Your task to perform on an android device: Search for pizza restaurants on Maps Image 0: 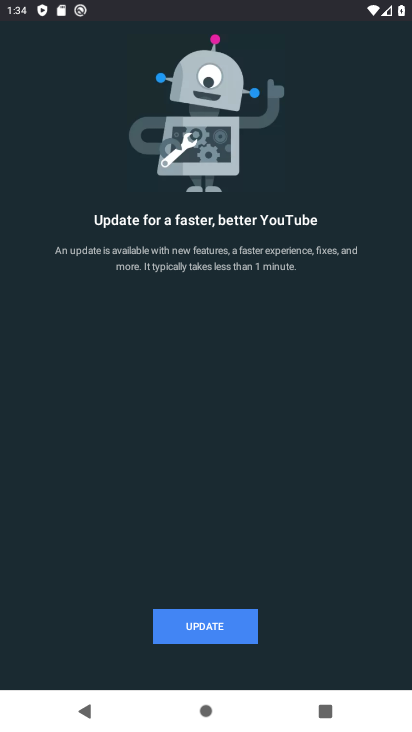
Step 0: press home button
Your task to perform on an android device: Search for pizza restaurants on Maps Image 1: 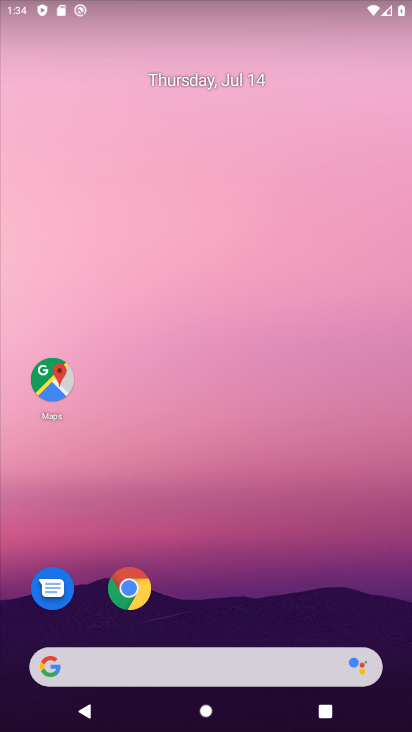
Step 1: drag from (170, 640) to (216, 205)
Your task to perform on an android device: Search for pizza restaurants on Maps Image 2: 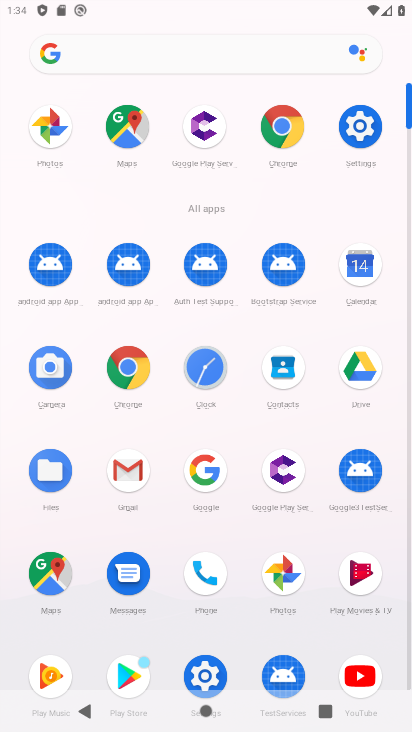
Step 2: click (40, 581)
Your task to perform on an android device: Search for pizza restaurants on Maps Image 3: 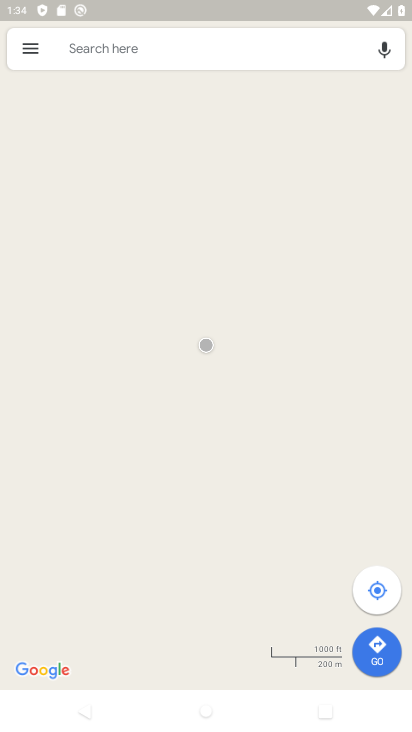
Step 3: click (179, 49)
Your task to perform on an android device: Search for pizza restaurants on Maps Image 4: 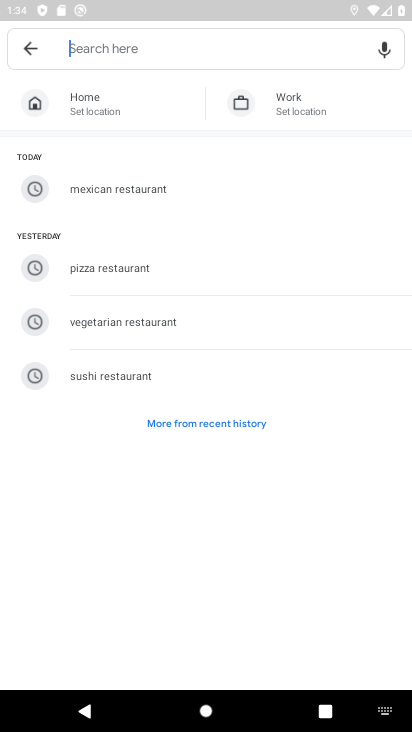
Step 4: type "Pizza restaurants"
Your task to perform on an android device: Search for pizza restaurants on Maps Image 5: 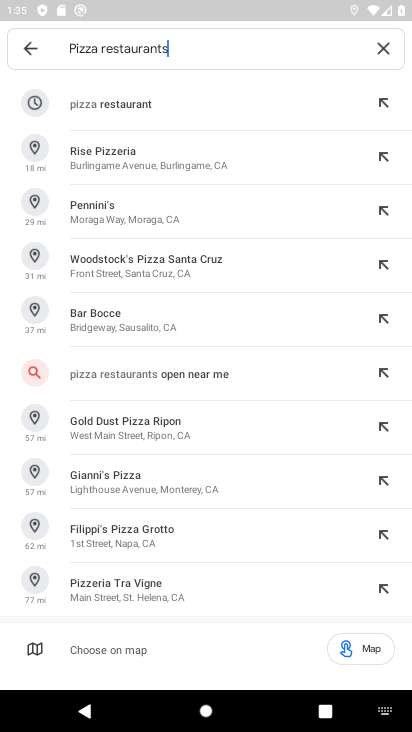
Step 5: click (210, 112)
Your task to perform on an android device: Search for pizza restaurants on Maps Image 6: 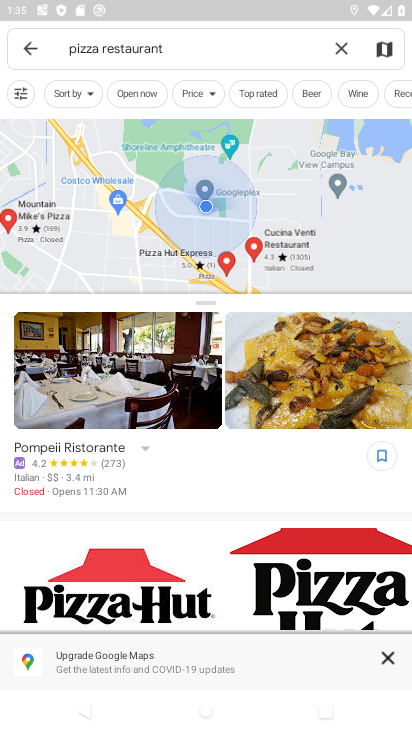
Step 6: task complete